Your task to perform on an android device: Open calendar and show me the third week of next month Image 0: 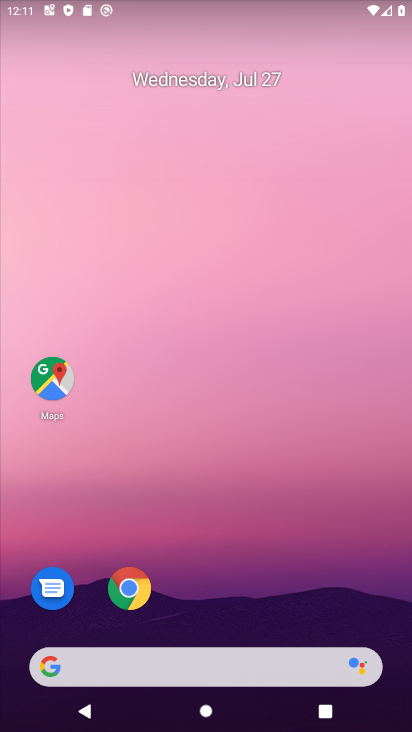
Step 0: drag from (39, 706) to (250, 100)
Your task to perform on an android device: Open calendar and show me the third week of next month Image 1: 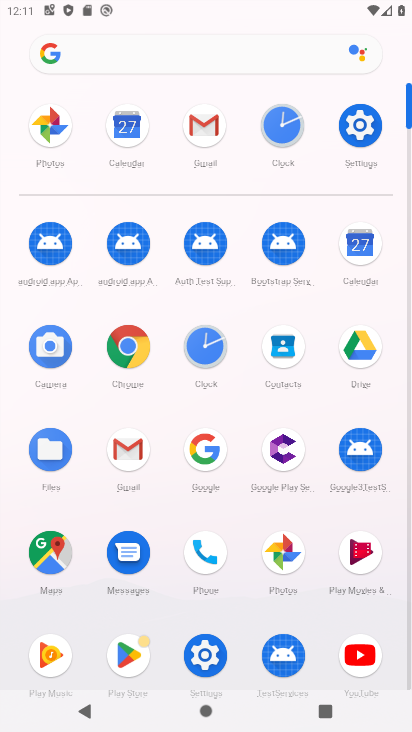
Step 1: click (367, 260)
Your task to perform on an android device: Open calendar and show me the third week of next month Image 2: 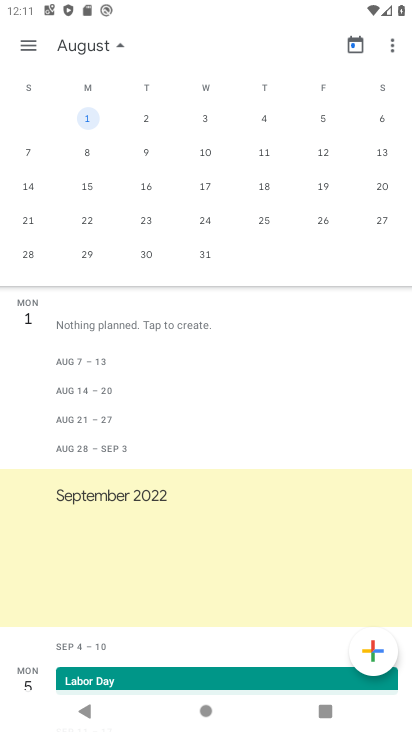
Step 2: click (84, 185)
Your task to perform on an android device: Open calendar and show me the third week of next month Image 3: 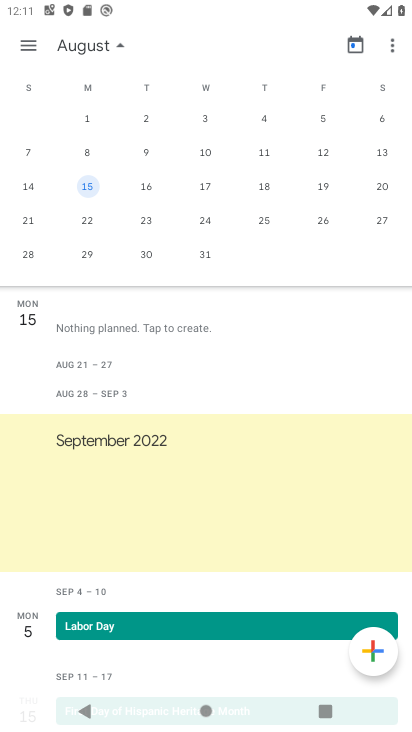
Step 3: task complete